Your task to perform on an android device: snooze an email in the gmail app Image 0: 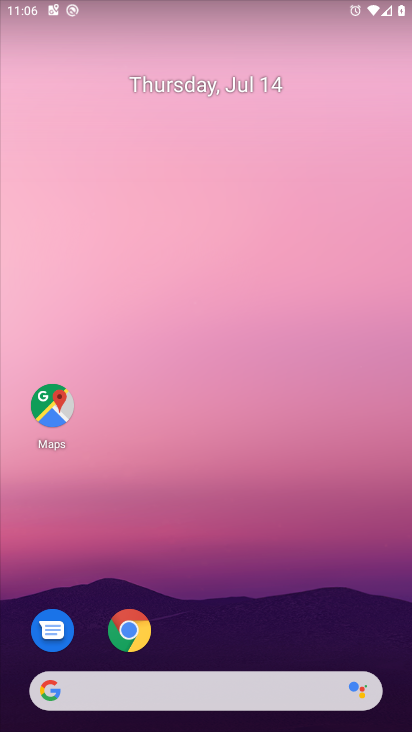
Step 0: drag from (30, 686) to (304, 48)
Your task to perform on an android device: snooze an email in the gmail app Image 1: 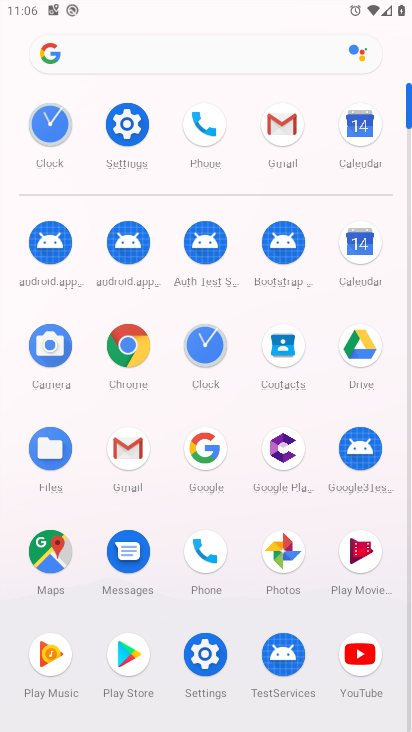
Step 1: click (137, 452)
Your task to perform on an android device: snooze an email in the gmail app Image 2: 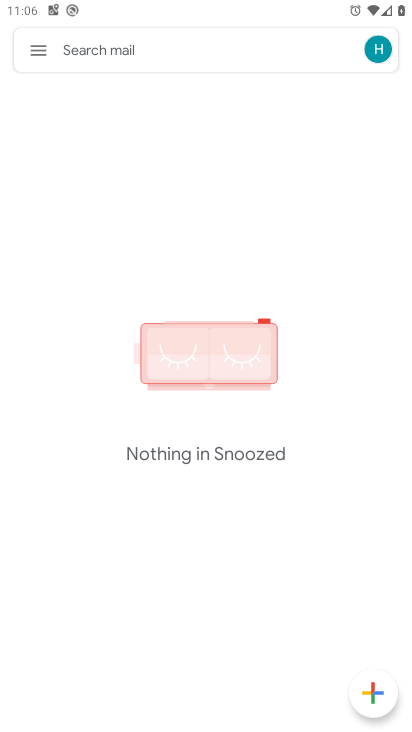
Step 2: click (40, 55)
Your task to perform on an android device: snooze an email in the gmail app Image 3: 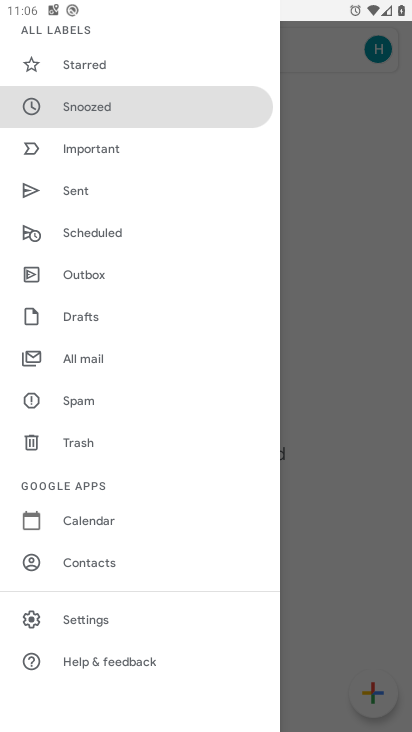
Step 3: click (82, 109)
Your task to perform on an android device: snooze an email in the gmail app Image 4: 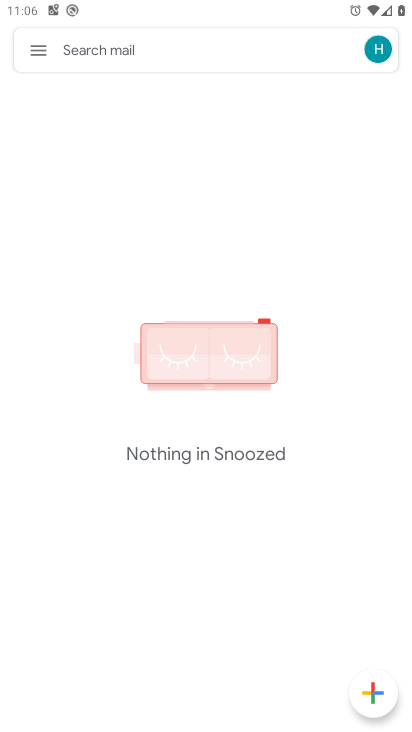
Step 4: task complete